Your task to perform on an android device: Search for seafood restaurants on Google Maps Image 0: 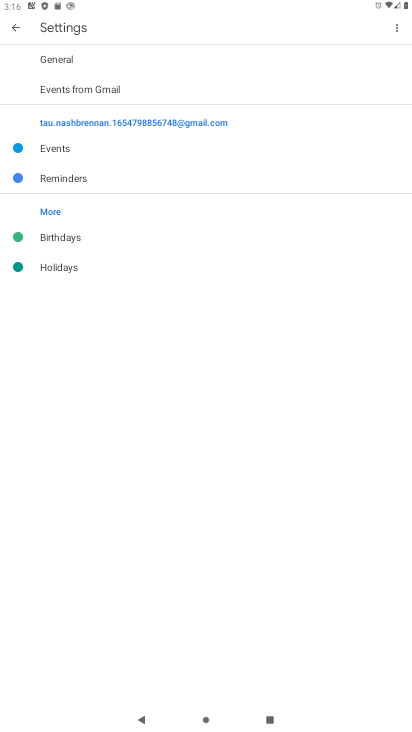
Step 0: press home button
Your task to perform on an android device: Search for seafood restaurants on Google Maps Image 1: 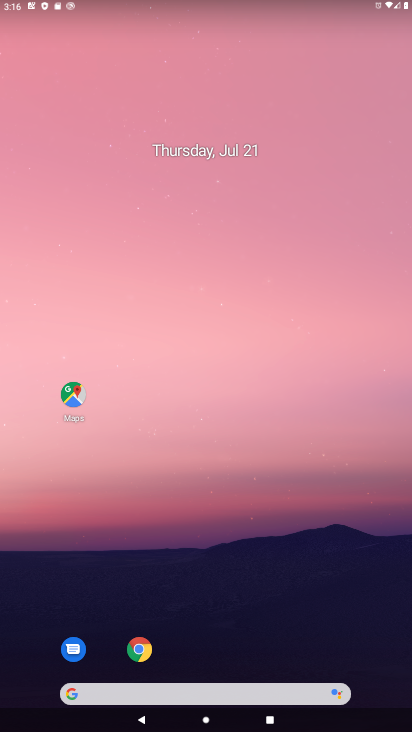
Step 1: click (197, 701)
Your task to perform on an android device: Search for seafood restaurants on Google Maps Image 2: 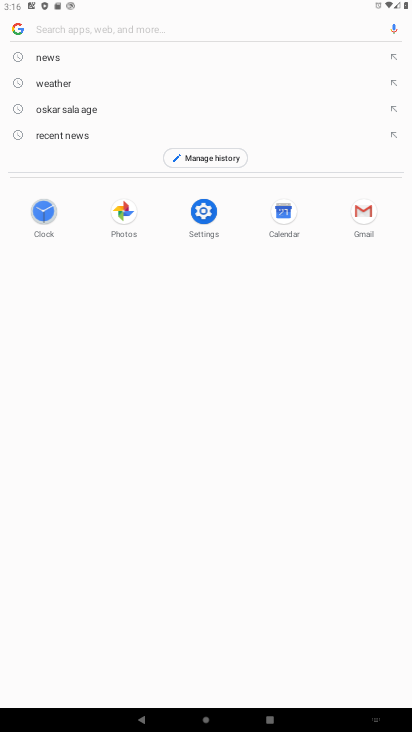
Step 2: type "seadffod"
Your task to perform on an android device: Search for seafood restaurants on Google Maps Image 3: 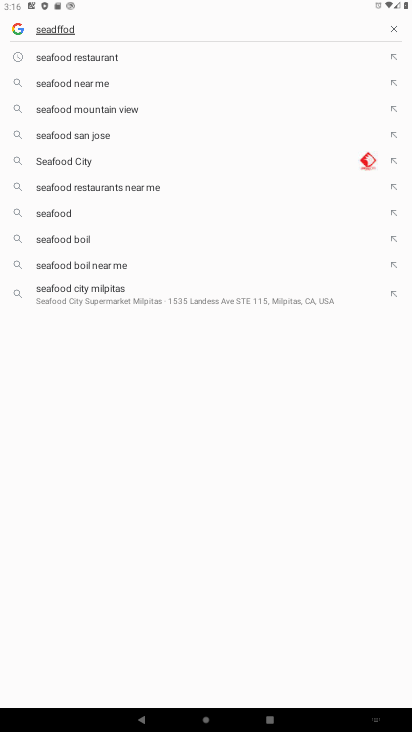
Step 3: click (127, 55)
Your task to perform on an android device: Search for seafood restaurants on Google Maps Image 4: 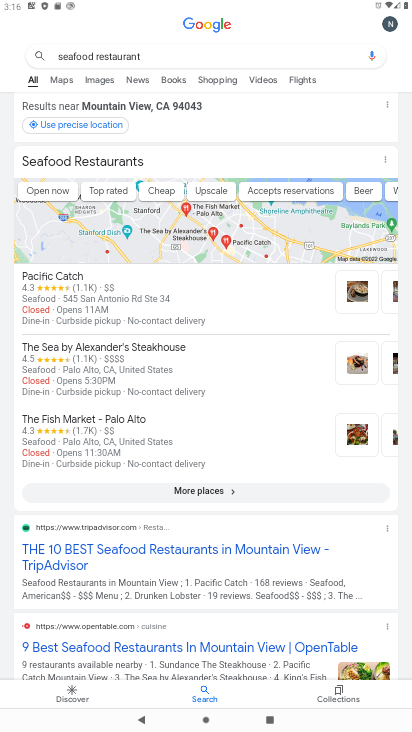
Step 4: task complete